Your task to perform on an android device: delete browsing data in the chrome app Image 0: 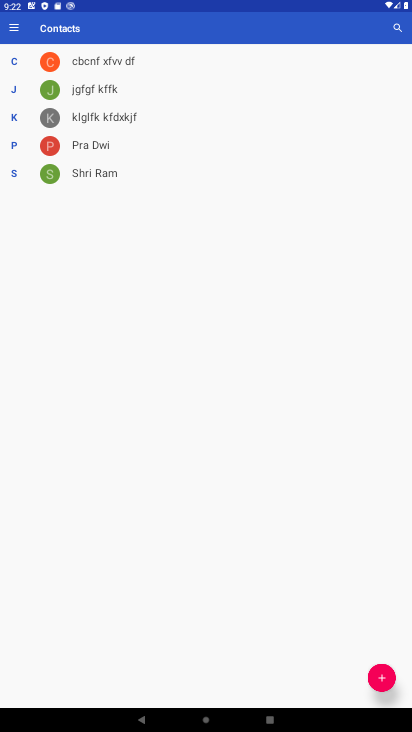
Step 0: press home button
Your task to perform on an android device: delete browsing data in the chrome app Image 1: 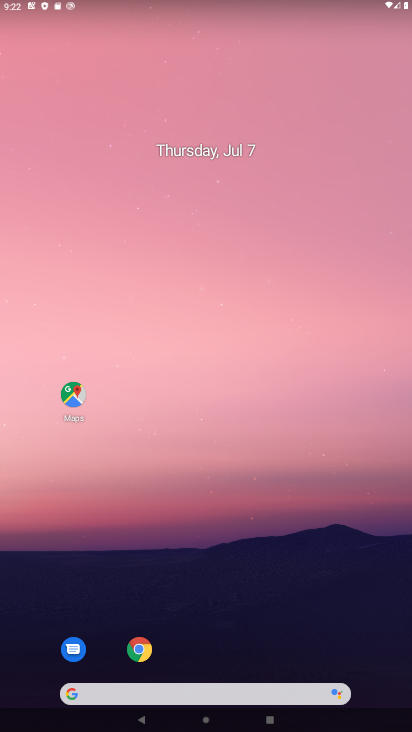
Step 1: click (135, 650)
Your task to perform on an android device: delete browsing data in the chrome app Image 2: 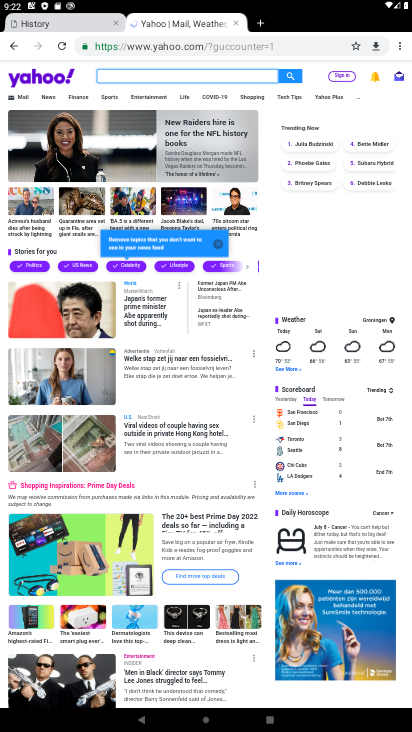
Step 2: click (401, 48)
Your task to perform on an android device: delete browsing data in the chrome app Image 3: 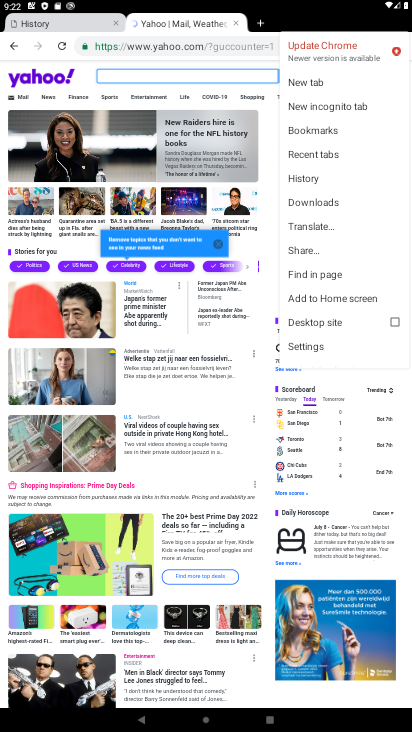
Step 3: click (304, 178)
Your task to perform on an android device: delete browsing data in the chrome app Image 4: 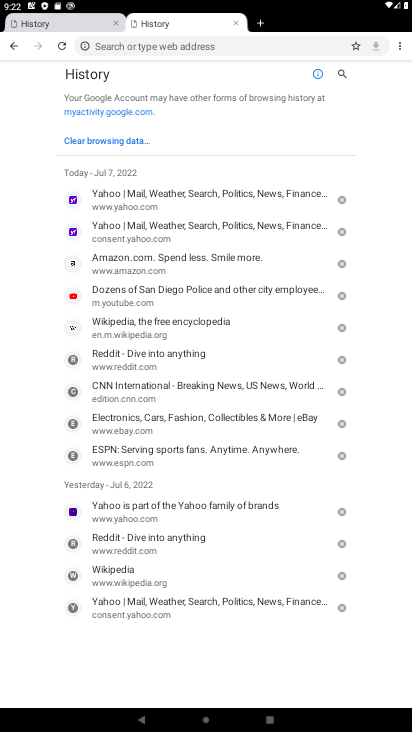
Step 4: click (112, 141)
Your task to perform on an android device: delete browsing data in the chrome app Image 5: 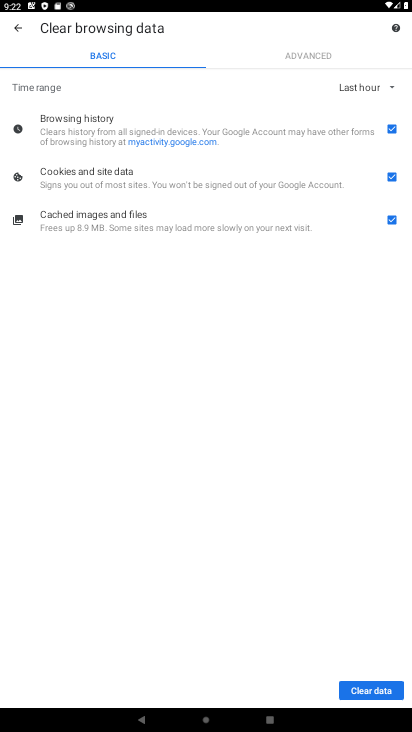
Step 5: click (391, 177)
Your task to perform on an android device: delete browsing data in the chrome app Image 6: 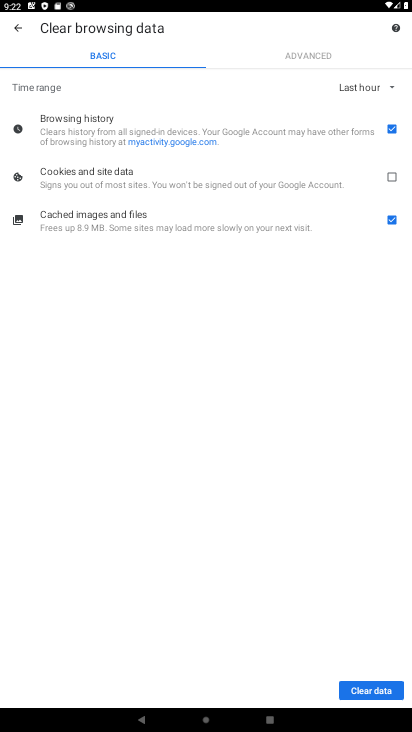
Step 6: click (394, 220)
Your task to perform on an android device: delete browsing data in the chrome app Image 7: 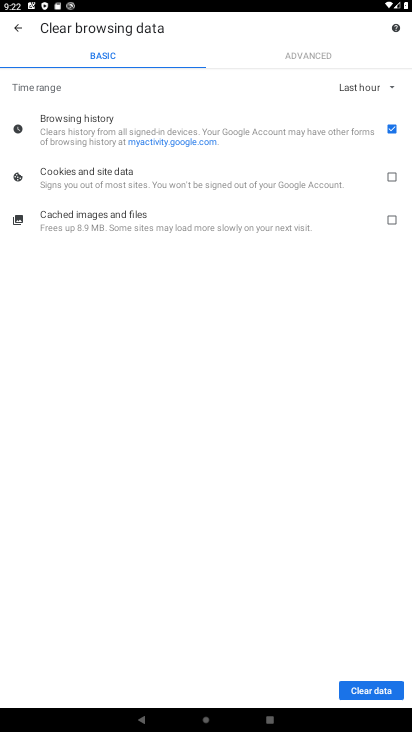
Step 7: click (363, 688)
Your task to perform on an android device: delete browsing data in the chrome app Image 8: 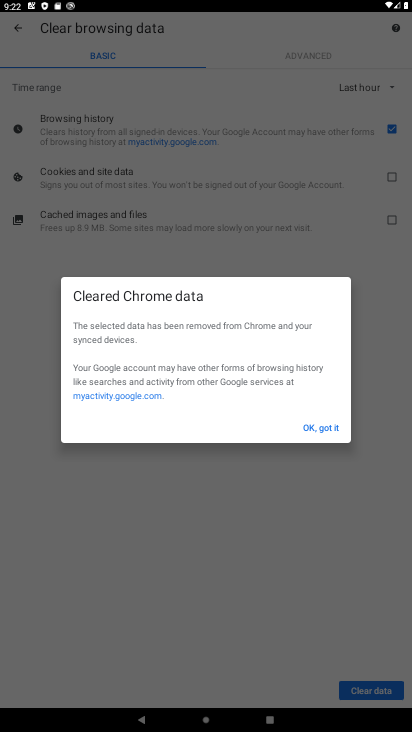
Step 8: click (325, 432)
Your task to perform on an android device: delete browsing data in the chrome app Image 9: 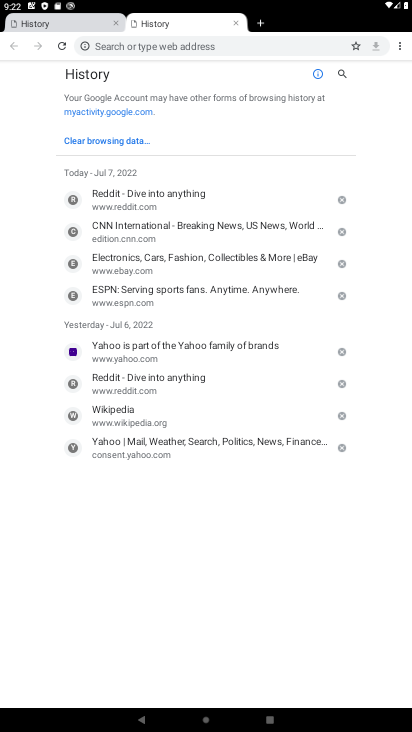
Step 9: task complete